Your task to perform on an android device: check out phone information Image 0: 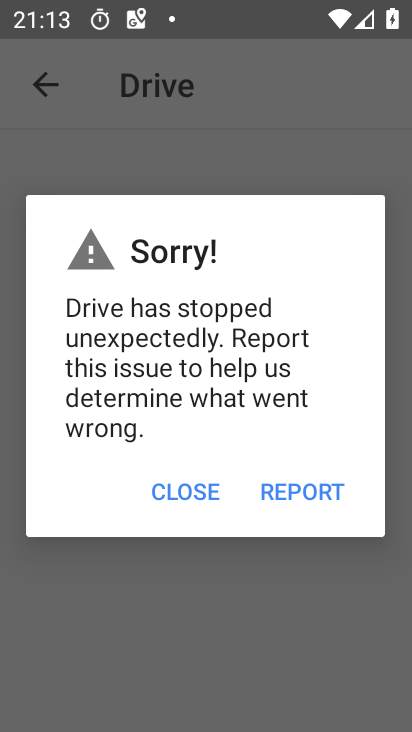
Step 0: press home button
Your task to perform on an android device: check out phone information Image 1: 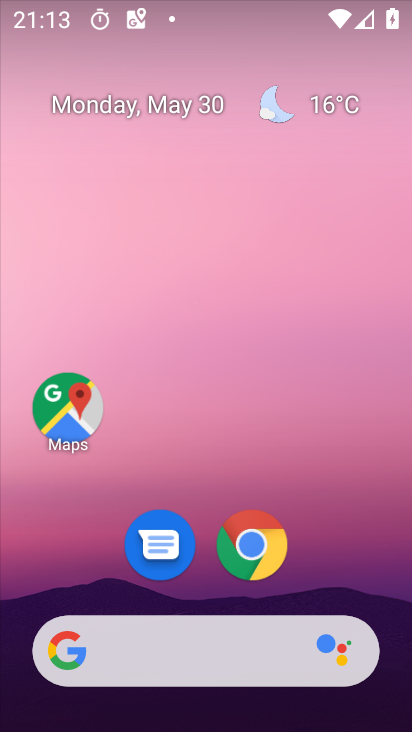
Step 1: drag from (327, 568) to (314, 67)
Your task to perform on an android device: check out phone information Image 2: 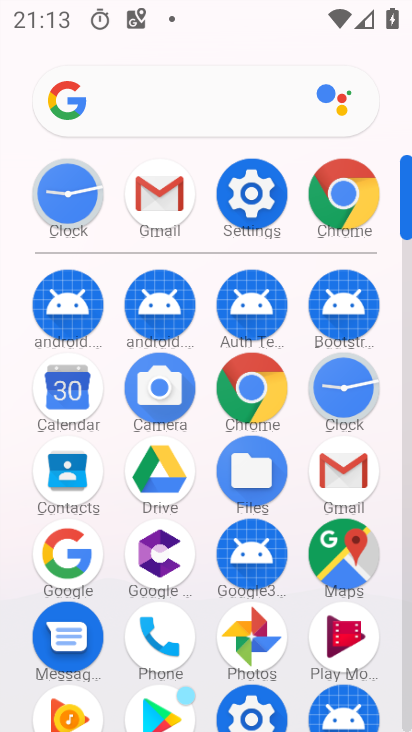
Step 2: click (249, 184)
Your task to perform on an android device: check out phone information Image 3: 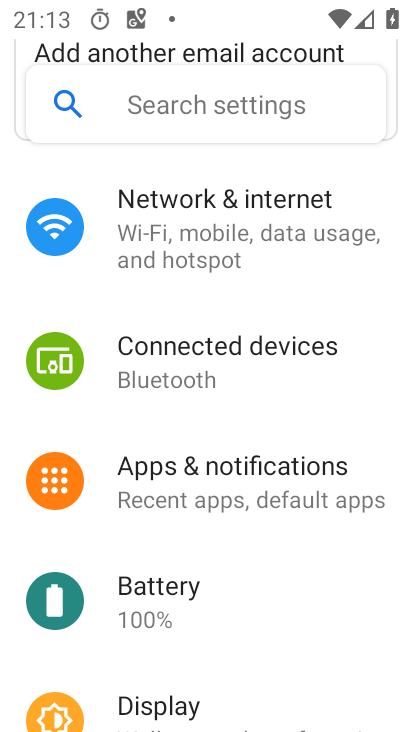
Step 3: drag from (278, 613) to (343, 99)
Your task to perform on an android device: check out phone information Image 4: 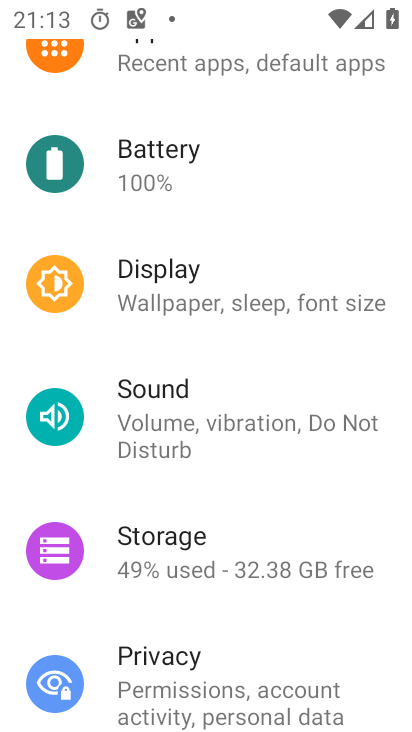
Step 4: drag from (229, 613) to (260, 217)
Your task to perform on an android device: check out phone information Image 5: 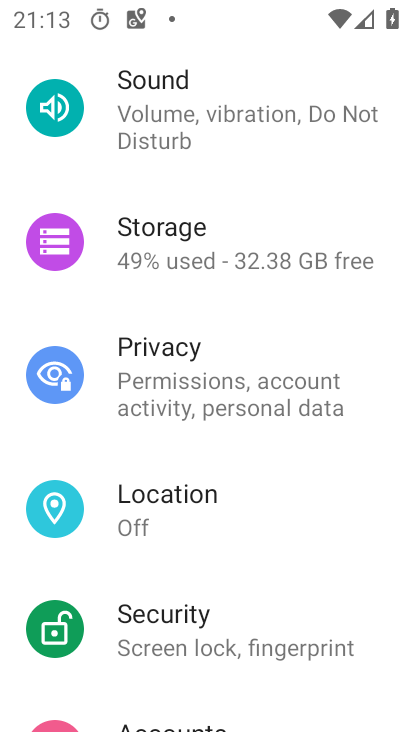
Step 5: drag from (238, 685) to (253, 311)
Your task to perform on an android device: check out phone information Image 6: 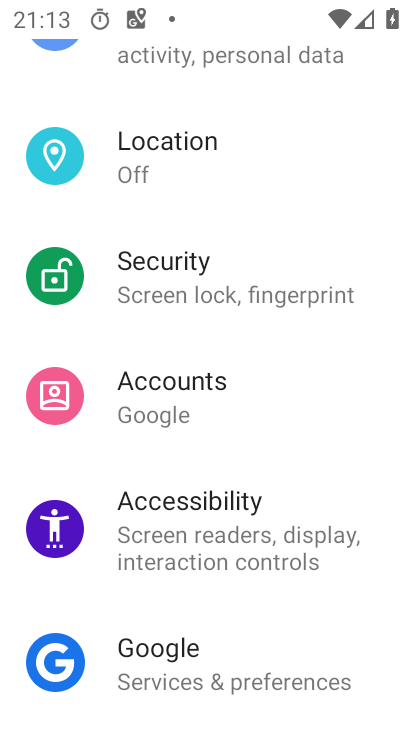
Step 6: drag from (271, 596) to (279, 202)
Your task to perform on an android device: check out phone information Image 7: 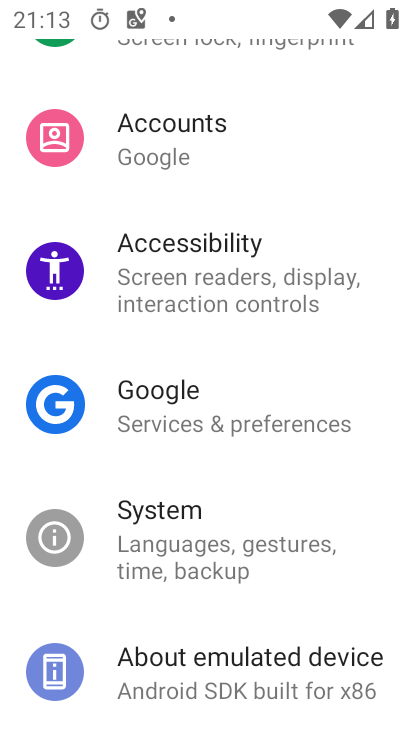
Step 7: click (253, 661)
Your task to perform on an android device: check out phone information Image 8: 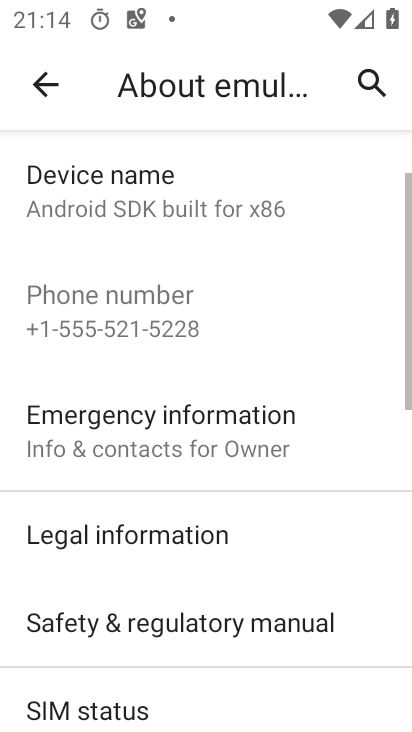
Step 8: drag from (322, 518) to (305, 151)
Your task to perform on an android device: check out phone information Image 9: 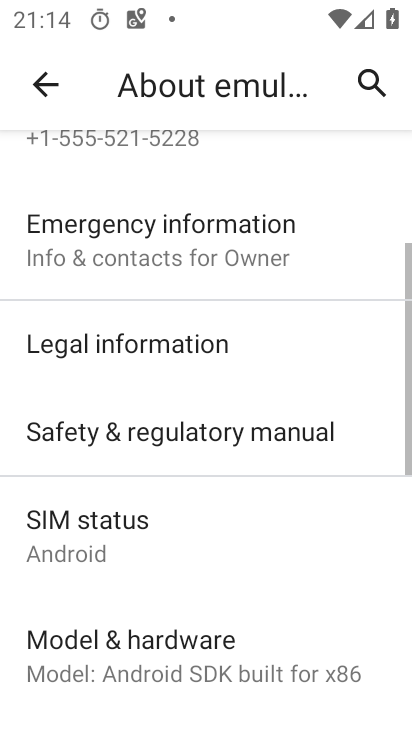
Step 9: drag from (227, 622) to (262, 361)
Your task to perform on an android device: check out phone information Image 10: 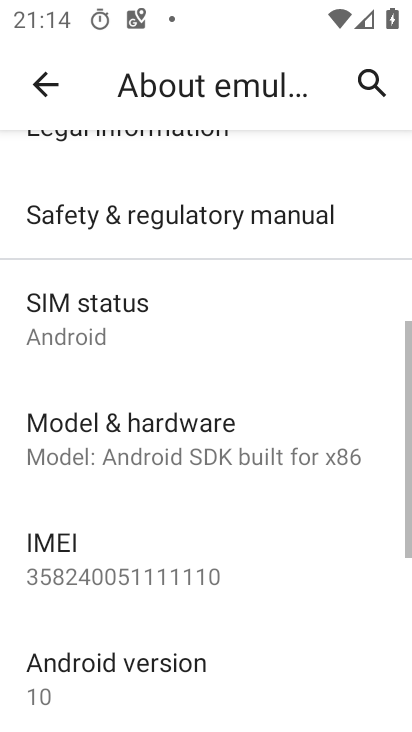
Step 10: click (202, 424)
Your task to perform on an android device: check out phone information Image 11: 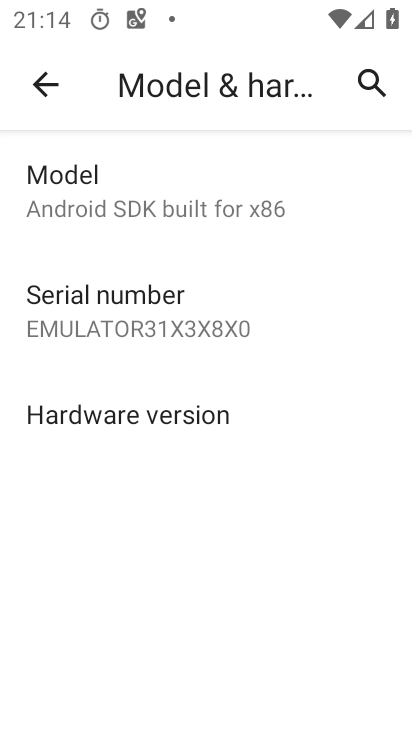
Step 11: task complete